Your task to perform on an android device: find snoozed emails in the gmail app Image 0: 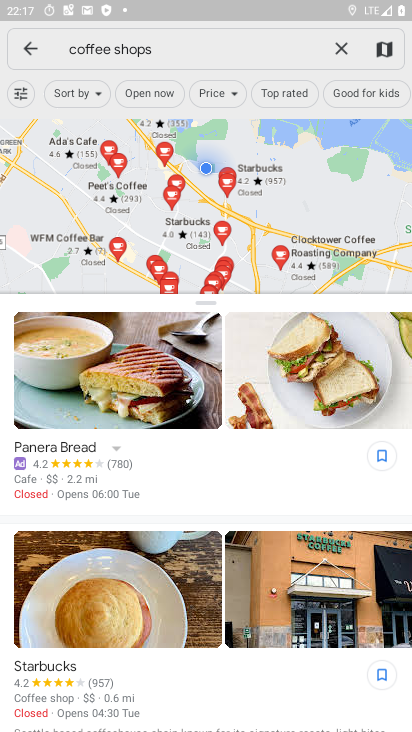
Step 0: press home button
Your task to perform on an android device: find snoozed emails in the gmail app Image 1: 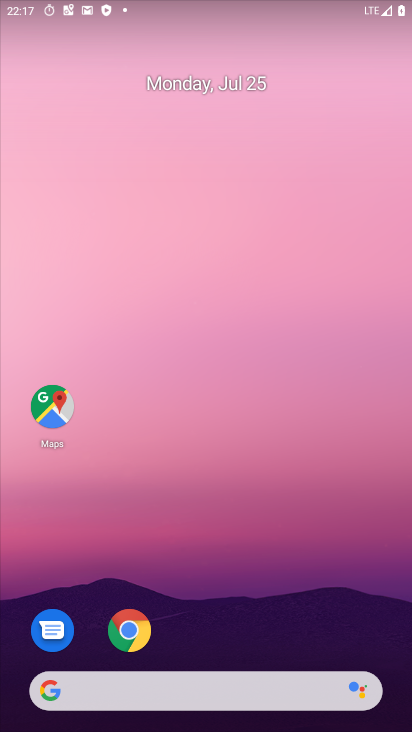
Step 1: drag from (273, 584) to (260, 19)
Your task to perform on an android device: find snoozed emails in the gmail app Image 2: 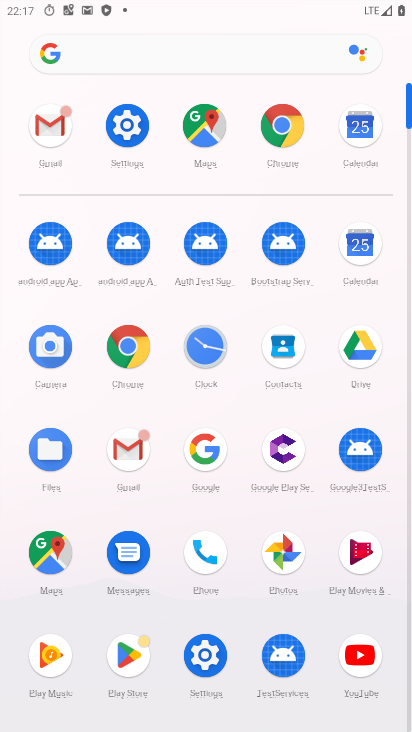
Step 2: click (50, 124)
Your task to perform on an android device: find snoozed emails in the gmail app Image 3: 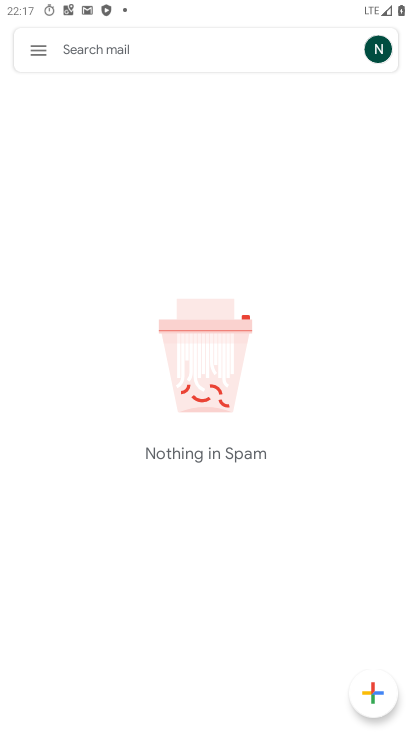
Step 3: click (35, 50)
Your task to perform on an android device: find snoozed emails in the gmail app Image 4: 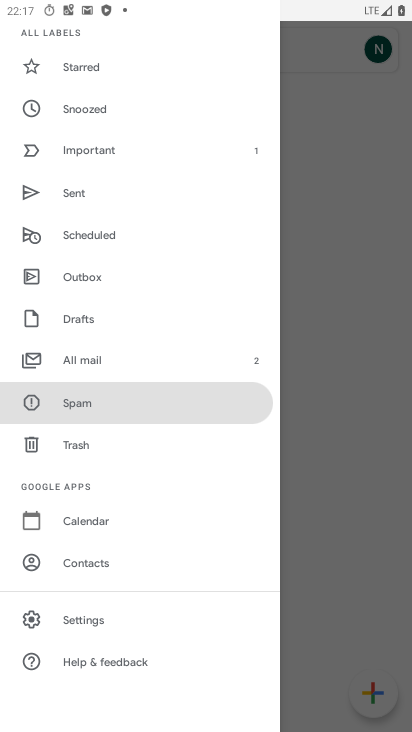
Step 4: drag from (146, 110) to (162, 374)
Your task to perform on an android device: find snoozed emails in the gmail app Image 5: 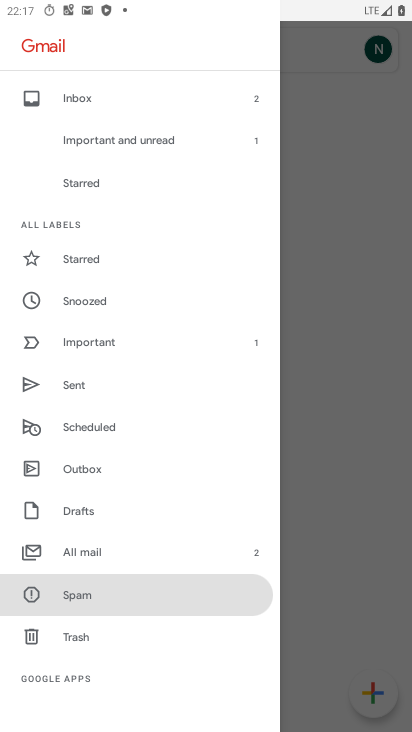
Step 5: click (72, 549)
Your task to perform on an android device: find snoozed emails in the gmail app Image 6: 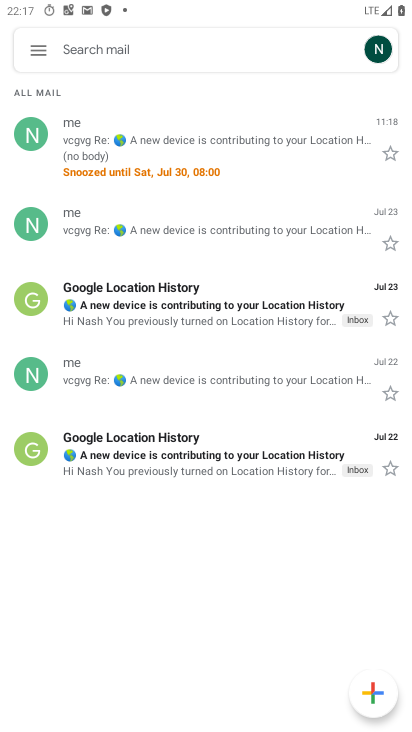
Step 6: click (178, 151)
Your task to perform on an android device: find snoozed emails in the gmail app Image 7: 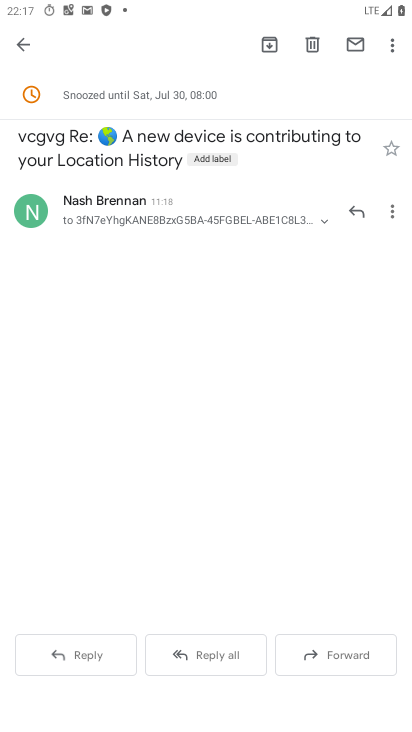
Step 7: task complete